Your task to perform on an android device: change alarm snooze length Image 0: 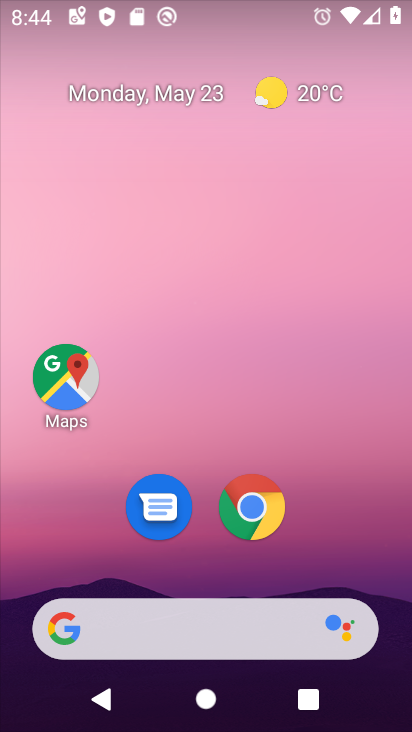
Step 0: drag from (359, 586) to (386, 56)
Your task to perform on an android device: change alarm snooze length Image 1: 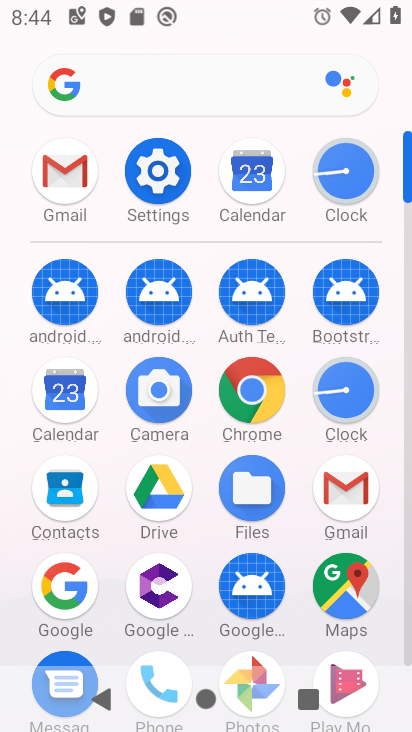
Step 1: click (341, 182)
Your task to perform on an android device: change alarm snooze length Image 2: 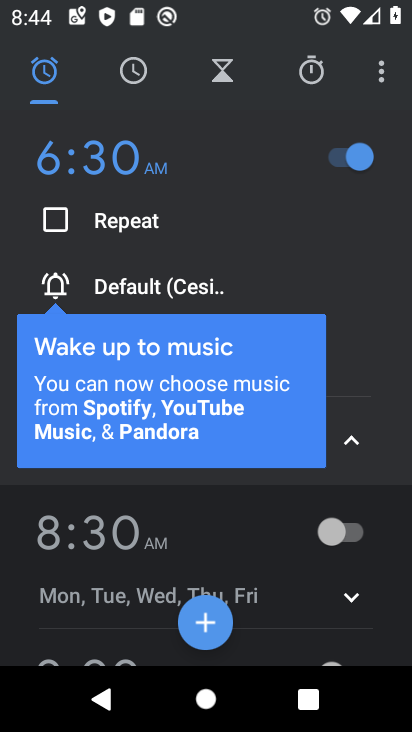
Step 2: click (385, 80)
Your task to perform on an android device: change alarm snooze length Image 3: 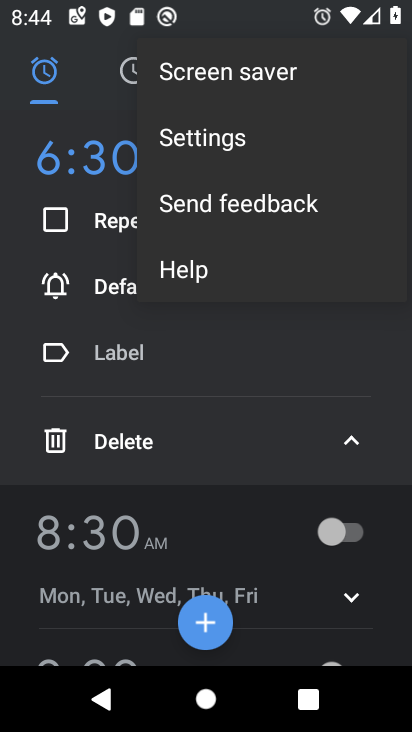
Step 3: click (212, 139)
Your task to perform on an android device: change alarm snooze length Image 4: 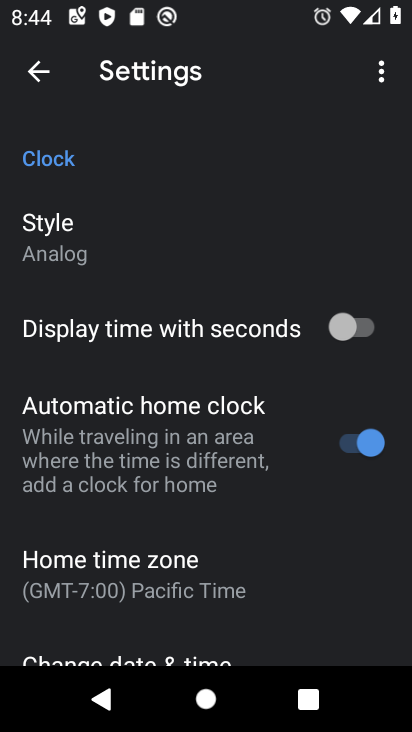
Step 4: drag from (169, 506) to (168, 164)
Your task to perform on an android device: change alarm snooze length Image 5: 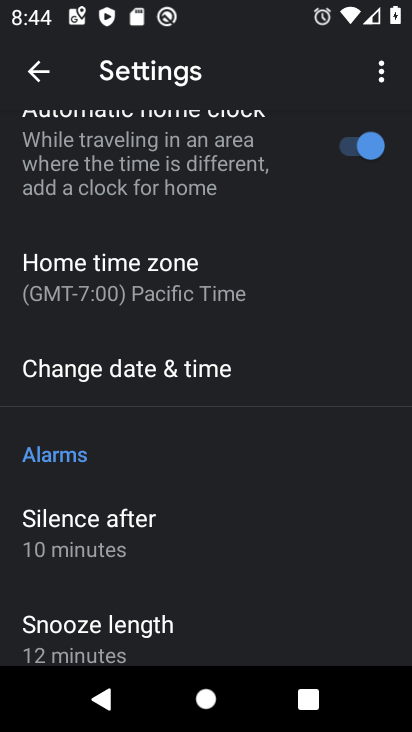
Step 5: drag from (143, 473) to (150, 62)
Your task to perform on an android device: change alarm snooze length Image 6: 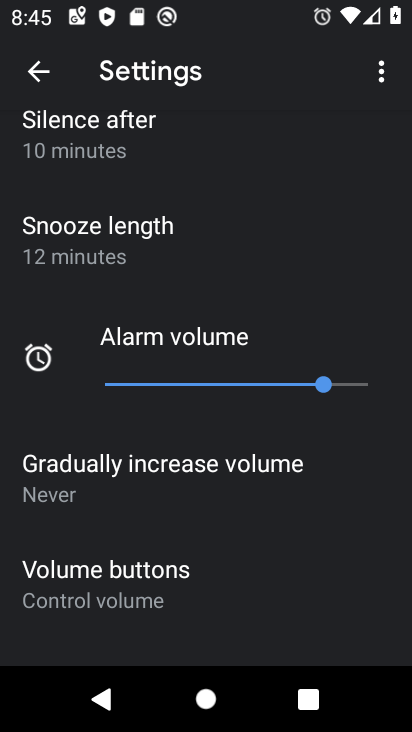
Step 6: click (71, 247)
Your task to perform on an android device: change alarm snooze length Image 7: 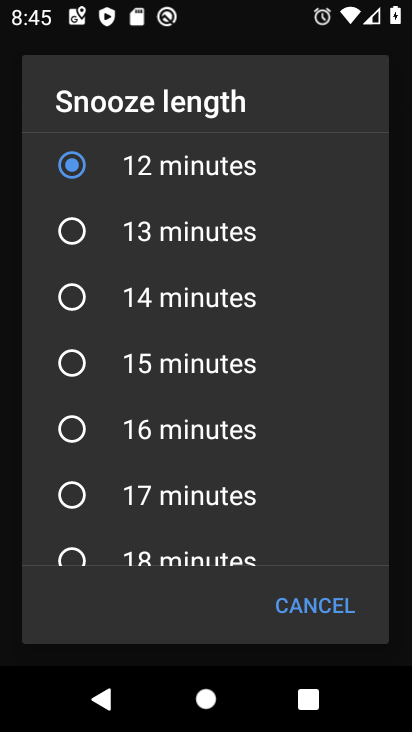
Step 7: click (73, 301)
Your task to perform on an android device: change alarm snooze length Image 8: 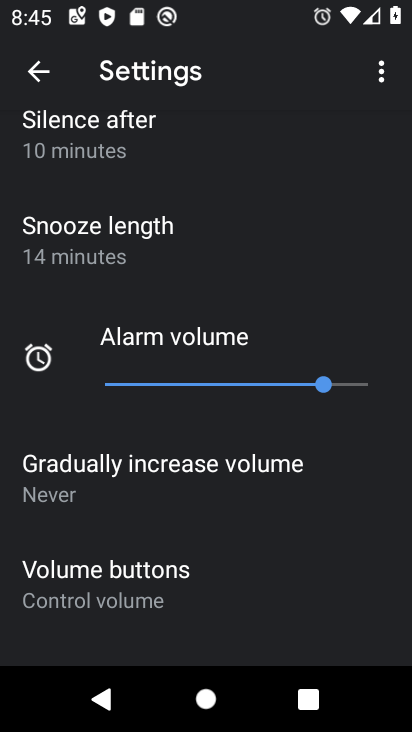
Step 8: task complete